Your task to perform on an android device: Open Chrome and go to settings Image 0: 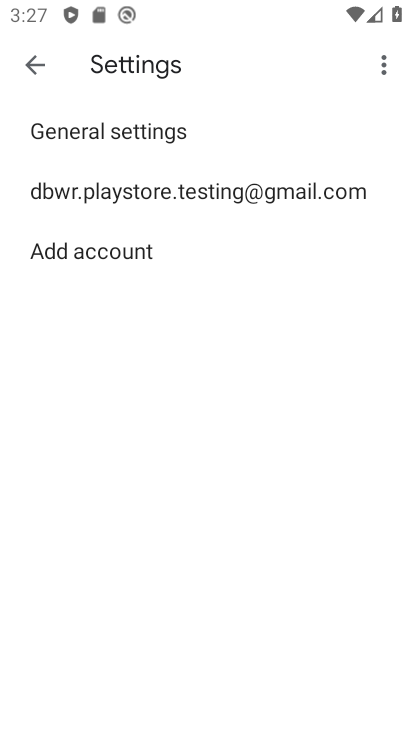
Step 0: press home button
Your task to perform on an android device: Open Chrome and go to settings Image 1: 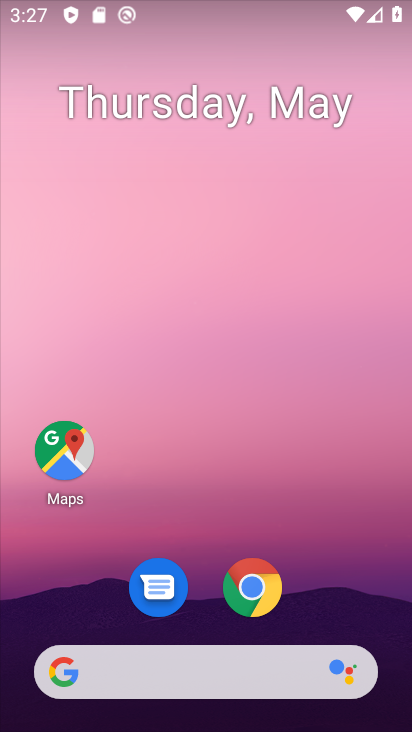
Step 1: drag from (361, 584) to (355, 105)
Your task to perform on an android device: Open Chrome and go to settings Image 2: 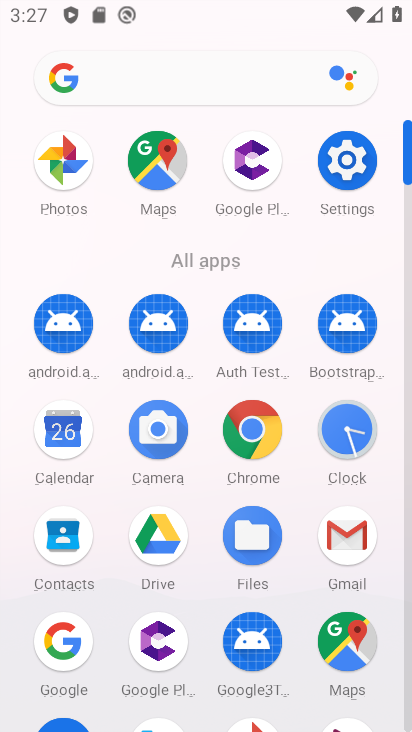
Step 2: click (263, 452)
Your task to perform on an android device: Open Chrome and go to settings Image 3: 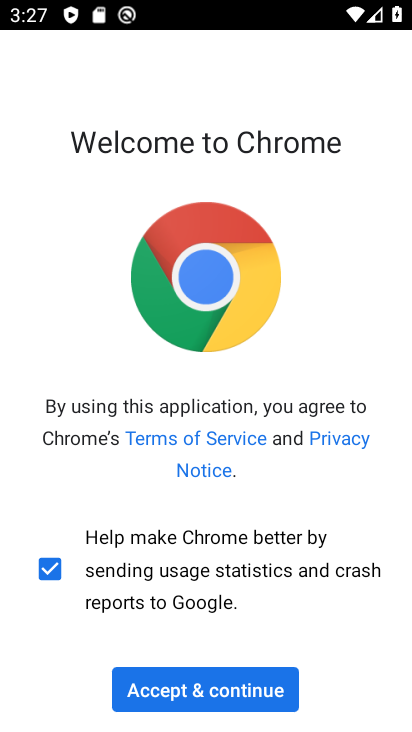
Step 3: click (227, 683)
Your task to perform on an android device: Open Chrome and go to settings Image 4: 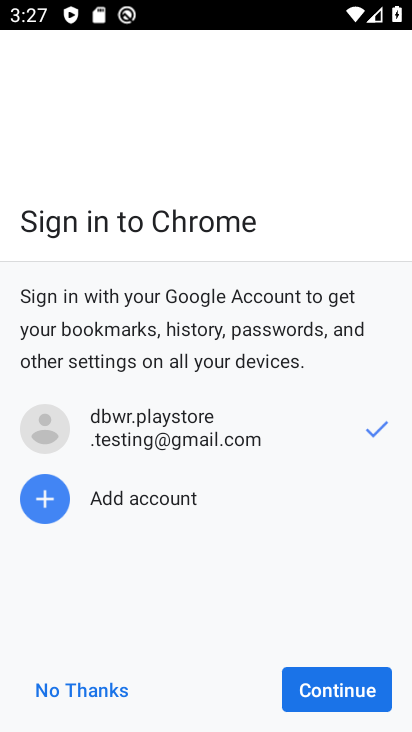
Step 4: click (303, 681)
Your task to perform on an android device: Open Chrome and go to settings Image 5: 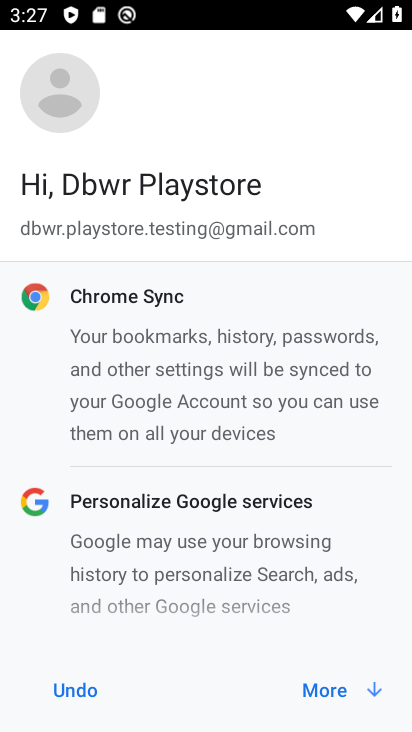
Step 5: click (316, 687)
Your task to perform on an android device: Open Chrome and go to settings Image 6: 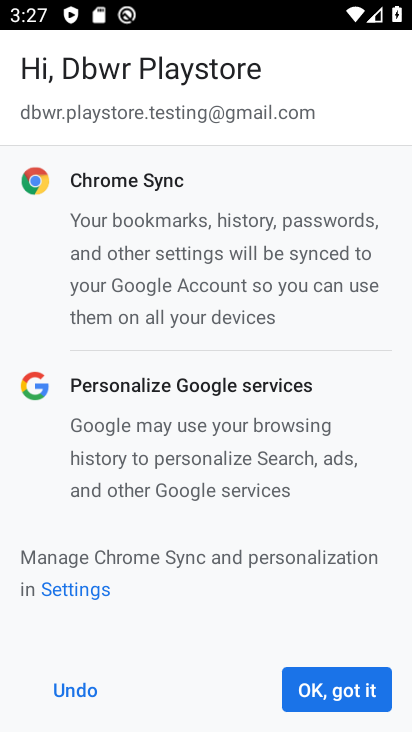
Step 6: click (316, 687)
Your task to perform on an android device: Open Chrome and go to settings Image 7: 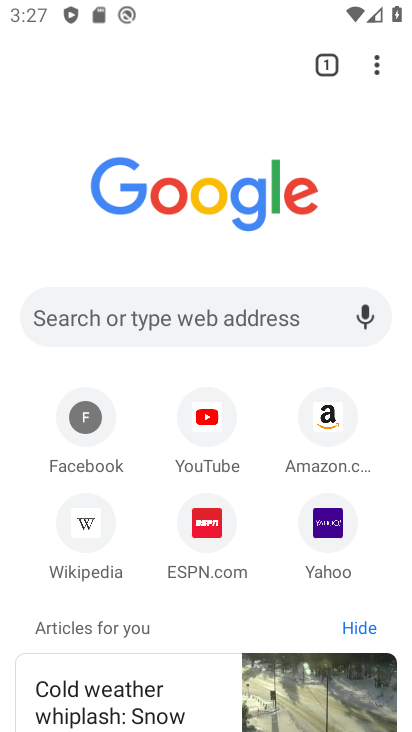
Step 7: click (375, 76)
Your task to perform on an android device: Open Chrome and go to settings Image 8: 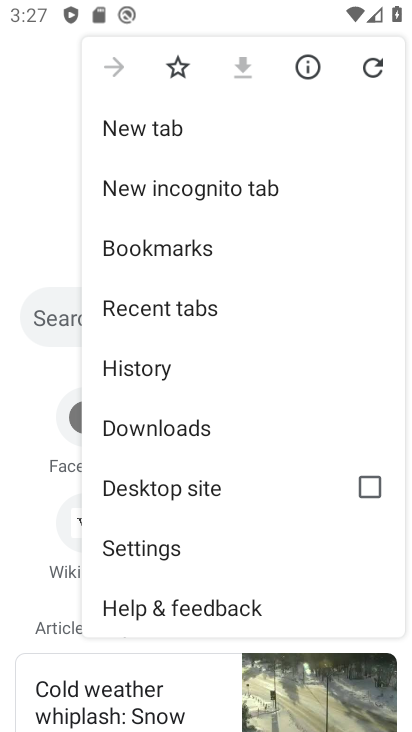
Step 8: click (190, 548)
Your task to perform on an android device: Open Chrome and go to settings Image 9: 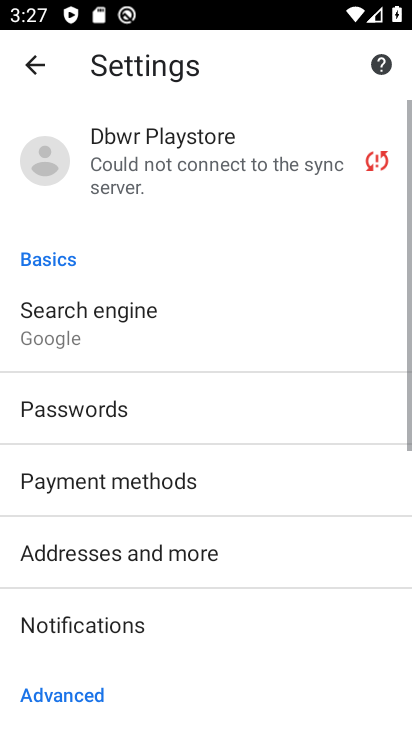
Step 9: task complete